Your task to perform on an android device: Open location settings Image 0: 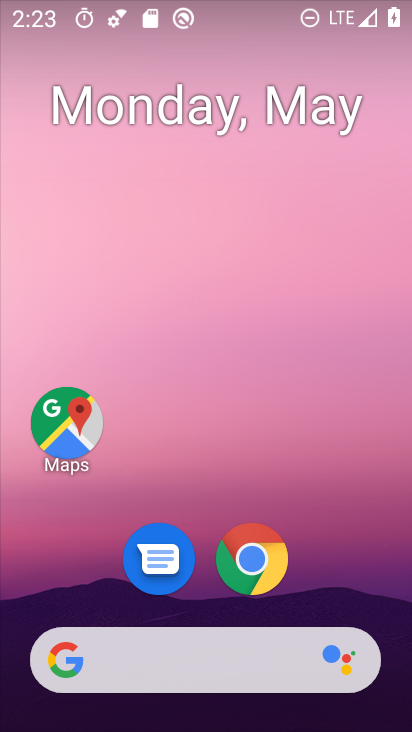
Step 0: drag from (374, 611) to (402, 58)
Your task to perform on an android device: Open location settings Image 1: 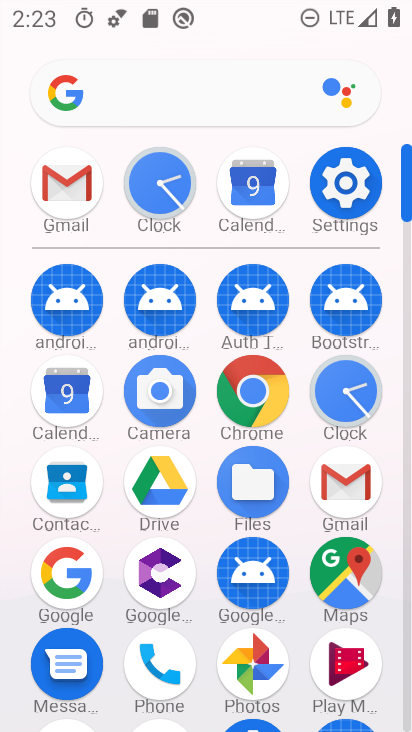
Step 1: click (348, 191)
Your task to perform on an android device: Open location settings Image 2: 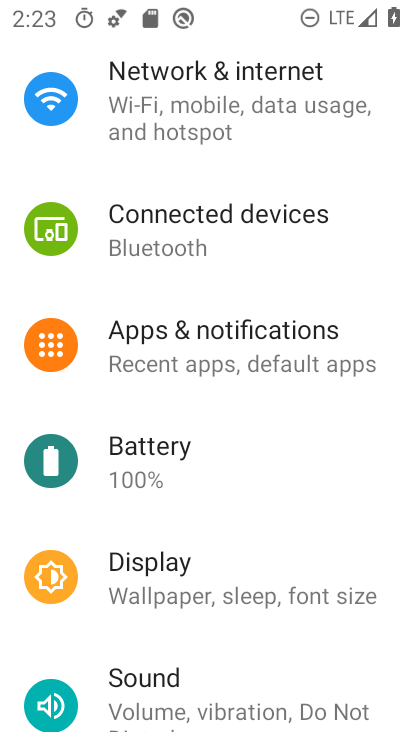
Step 2: drag from (322, 514) to (333, 105)
Your task to perform on an android device: Open location settings Image 3: 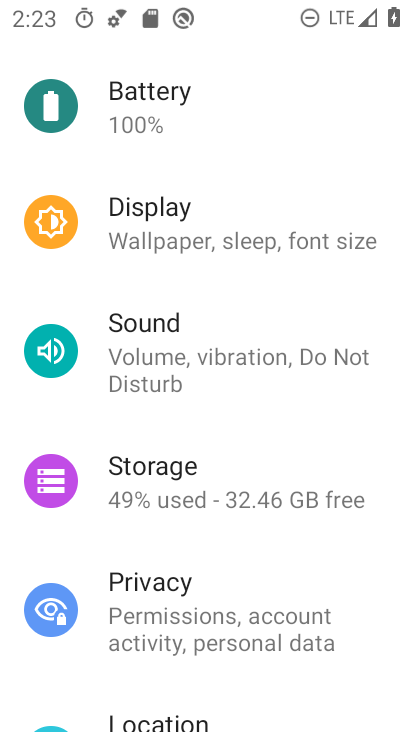
Step 3: drag from (302, 546) to (302, 107)
Your task to perform on an android device: Open location settings Image 4: 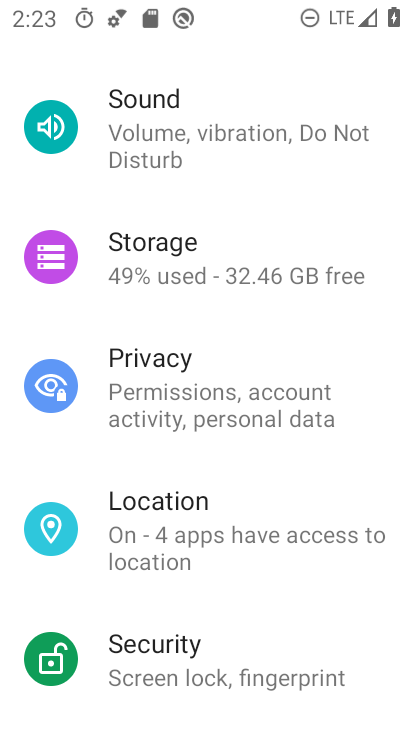
Step 4: click (164, 524)
Your task to perform on an android device: Open location settings Image 5: 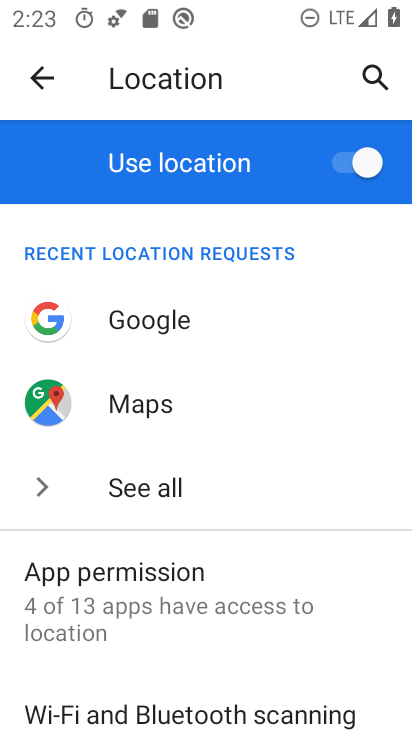
Step 5: task complete